Your task to perform on an android device: turn on improve location accuracy Image 0: 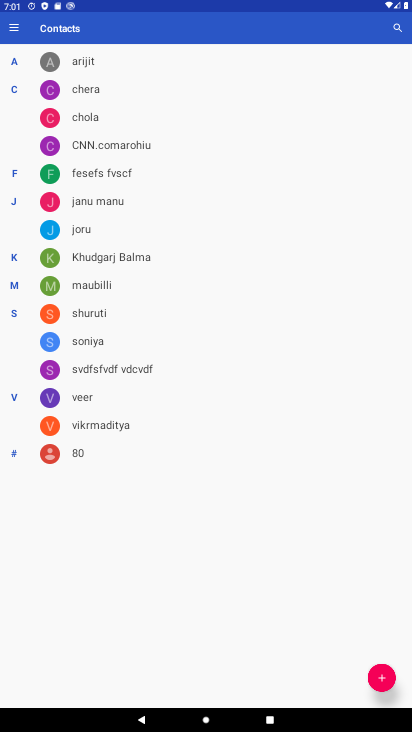
Step 0: press home button
Your task to perform on an android device: turn on improve location accuracy Image 1: 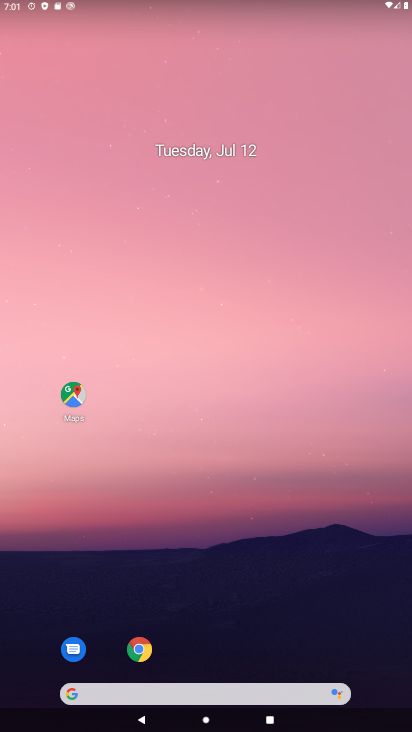
Step 1: drag from (180, 693) to (236, 276)
Your task to perform on an android device: turn on improve location accuracy Image 2: 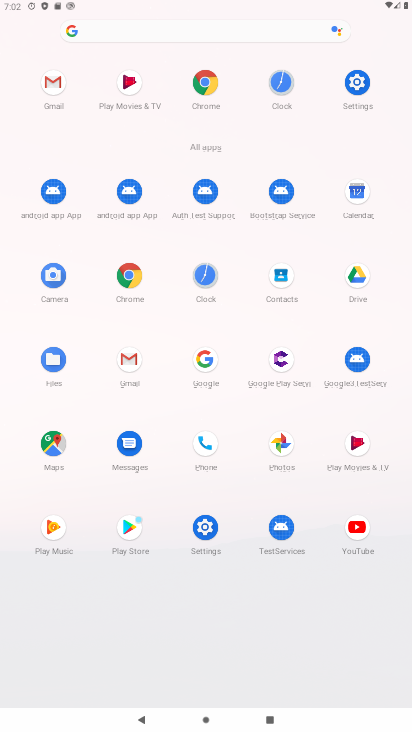
Step 2: click (358, 82)
Your task to perform on an android device: turn on improve location accuracy Image 3: 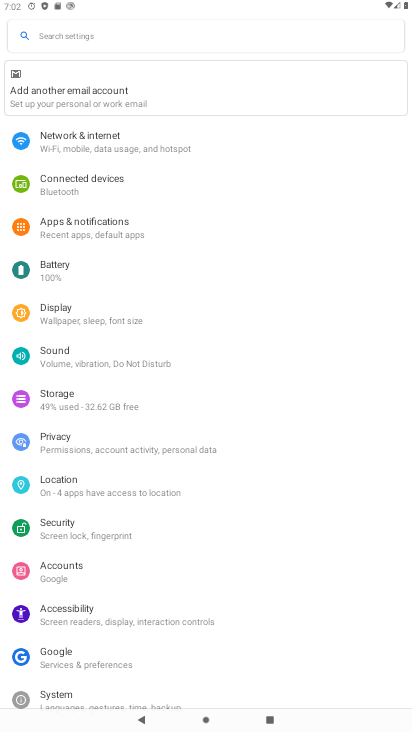
Step 3: click (78, 490)
Your task to perform on an android device: turn on improve location accuracy Image 4: 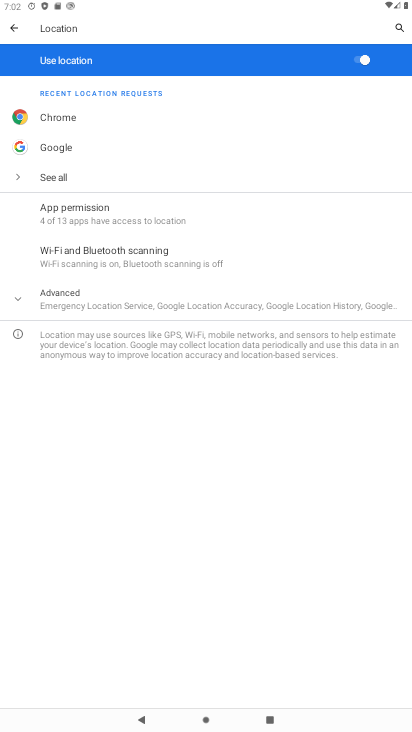
Step 4: click (121, 308)
Your task to perform on an android device: turn on improve location accuracy Image 5: 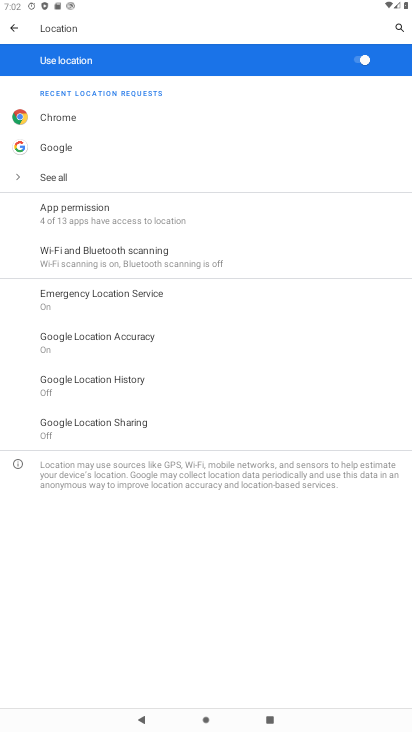
Step 5: click (129, 339)
Your task to perform on an android device: turn on improve location accuracy Image 6: 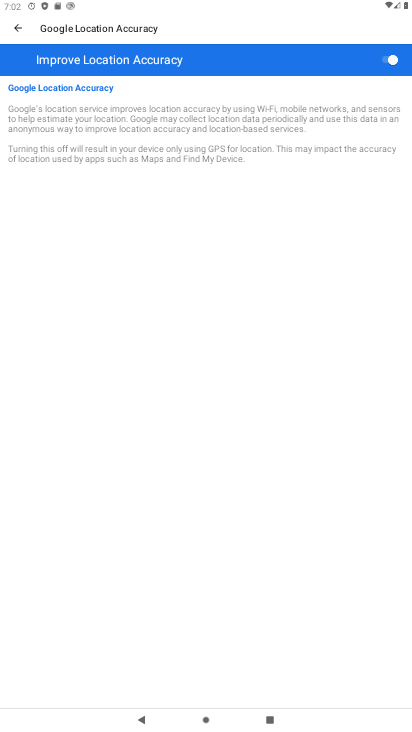
Step 6: task complete